Your task to perform on an android device: Search for "jbl flip 4" on target, select the first entry, add it to the cart, then select checkout. Image 0: 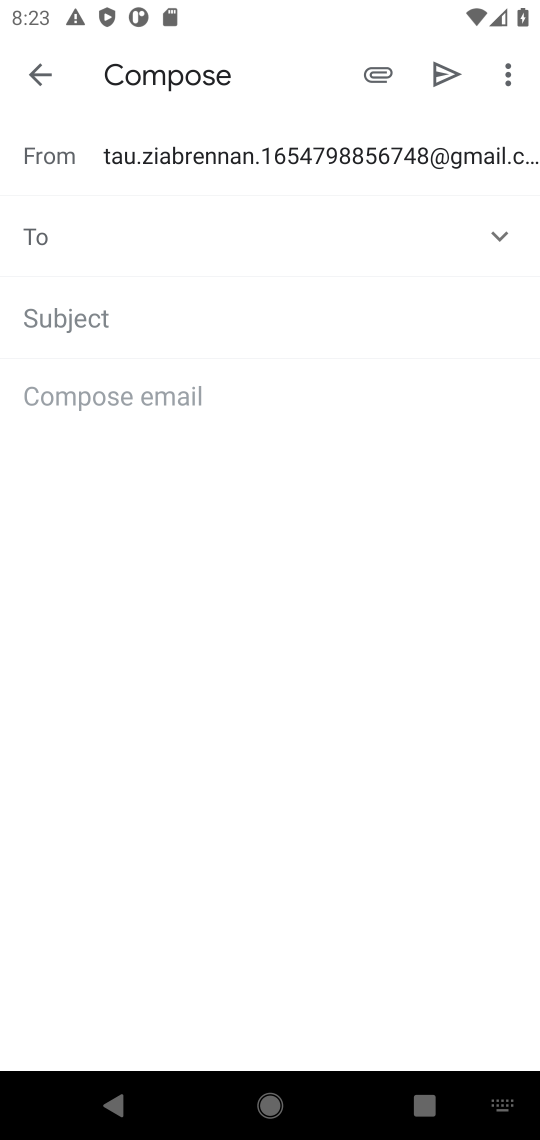
Step 0: drag from (318, 964) to (488, 319)
Your task to perform on an android device: Search for "jbl flip 4" on target, select the first entry, add it to the cart, then select checkout. Image 1: 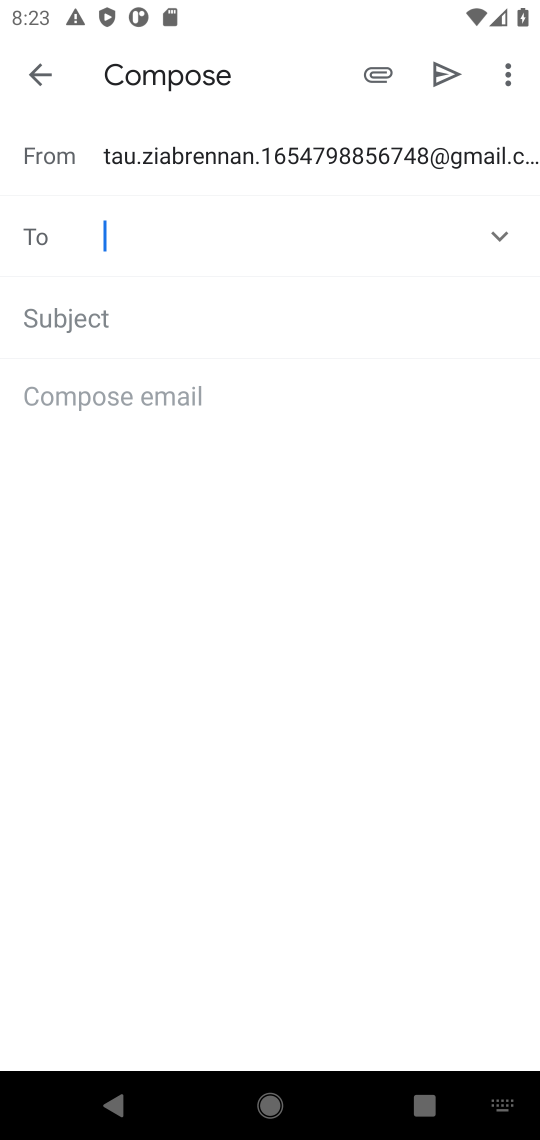
Step 1: press home button
Your task to perform on an android device: Search for "jbl flip 4" on target, select the first entry, add it to the cart, then select checkout. Image 2: 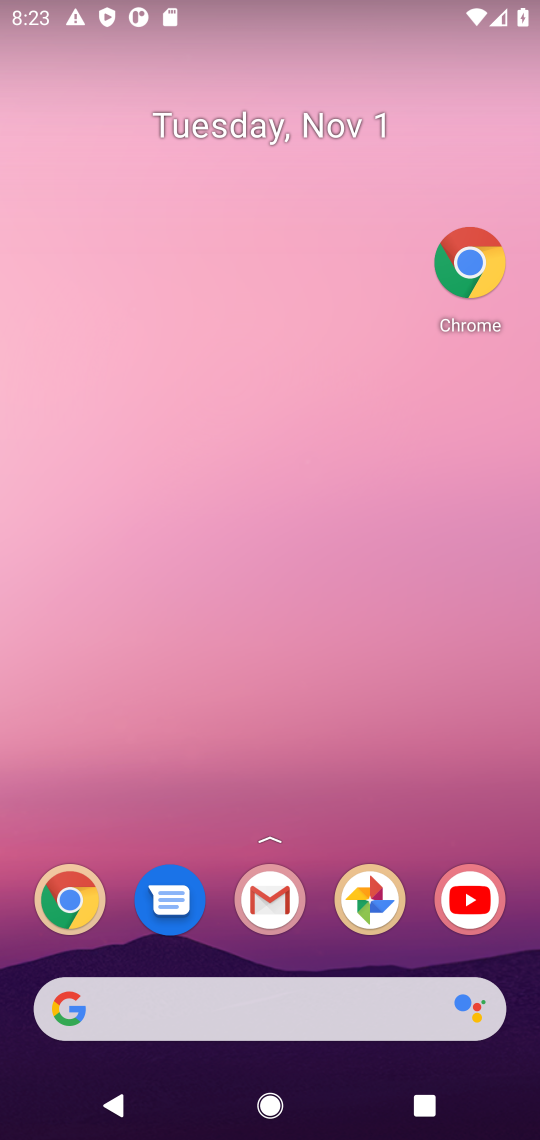
Step 2: drag from (334, 961) to (247, 162)
Your task to perform on an android device: Search for "jbl flip 4" on target, select the first entry, add it to the cart, then select checkout. Image 3: 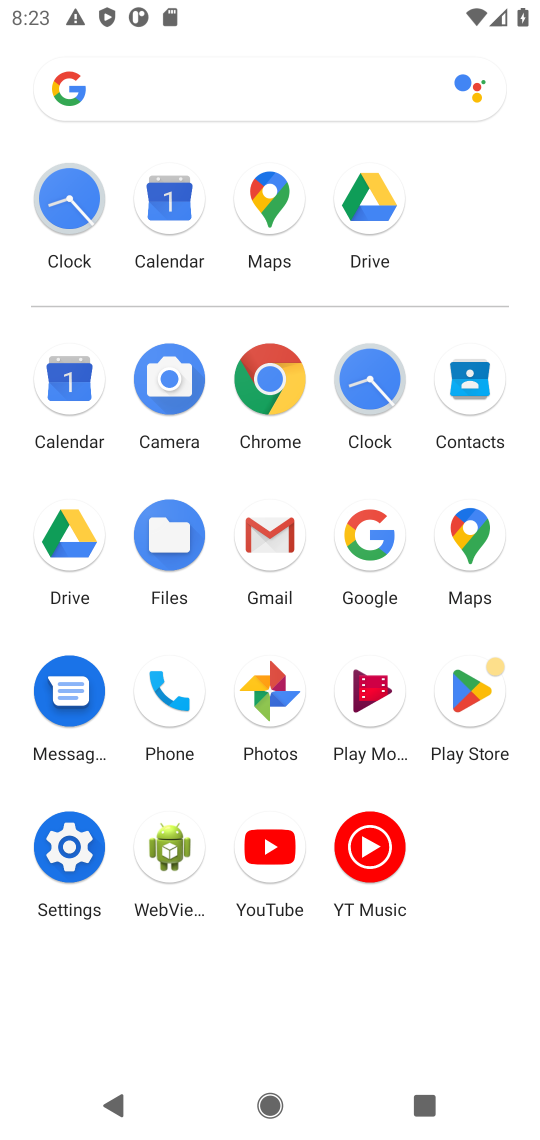
Step 3: click (273, 385)
Your task to perform on an android device: Search for "jbl flip 4" on target, select the first entry, add it to the cart, then select checkout. Image 4: 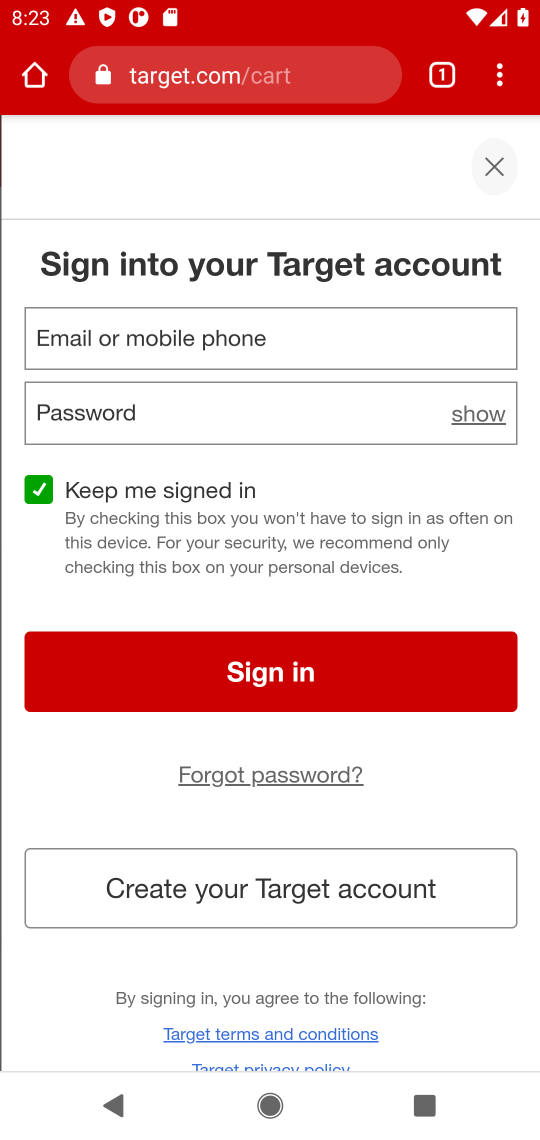
Step 4: click (283, 94)
Your task to perform on an android device: Search for "jbl flip 4" on target, select the first entry, add it to the cart, then select checkout. Image 5: 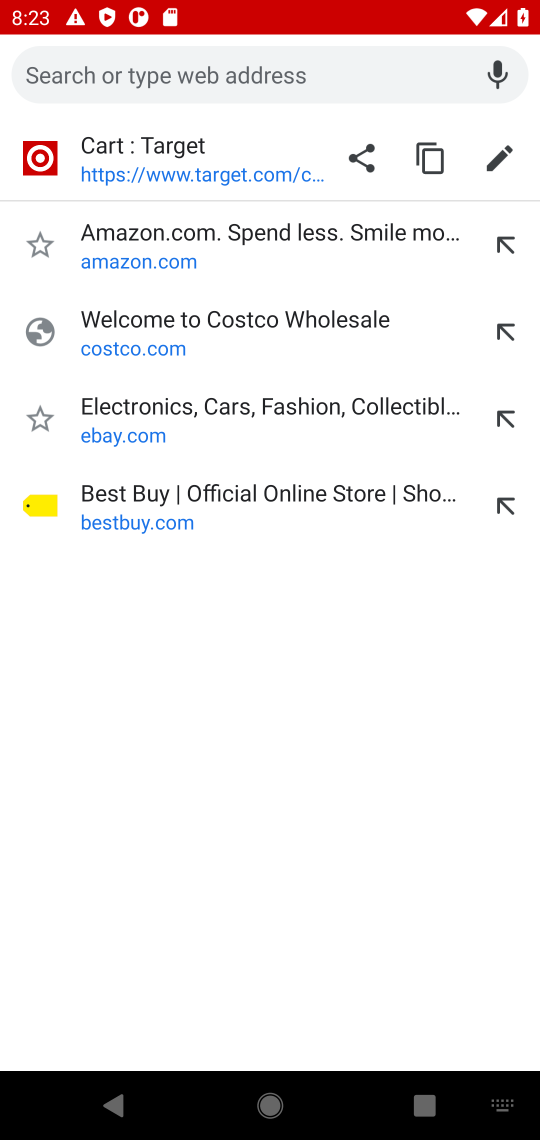
Step 5: type "target.com"
Your task to perform on an android device: Search for "jbl flip 4" on target, select the first entry, add it to the cart, then select checkout. Image 6: 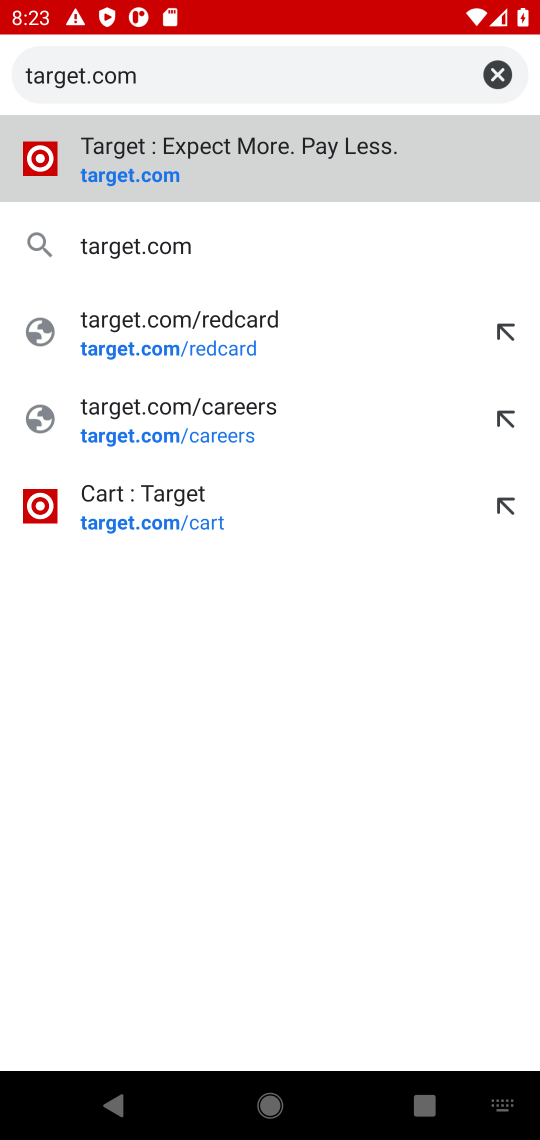
Step 6: click (135, 167)
Your task to perform on an android device: Search for "jbl flip 4" on target, select the first entry, add it to the cart, then select checkout. Image 7: 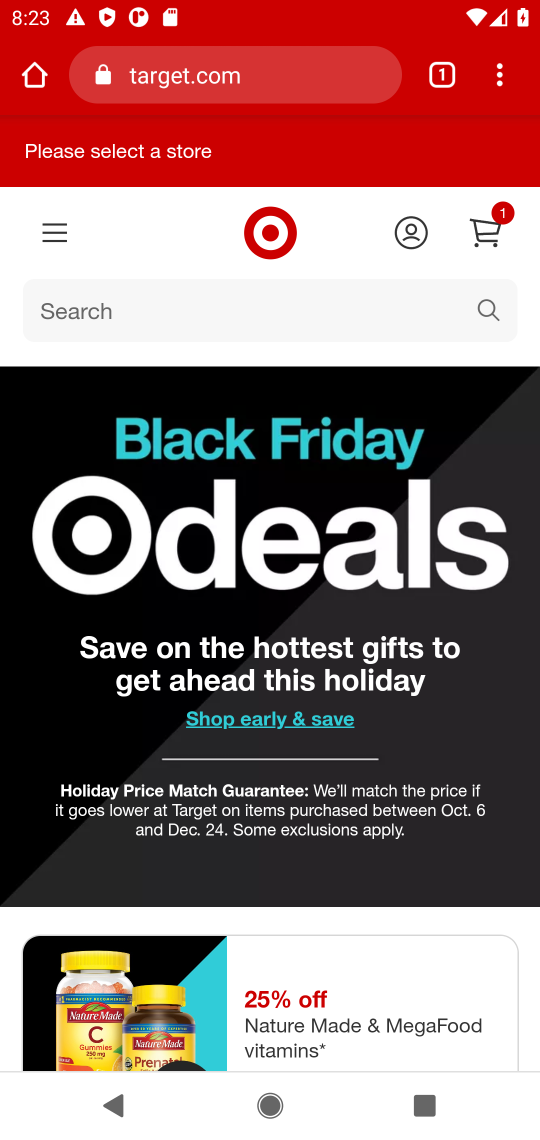
Step 7: click (396, 318)
Your task to perform on an android device: Search for "jbl flip 4" on target, select the first entry, add it to the cart, then select checkout. Image 8: 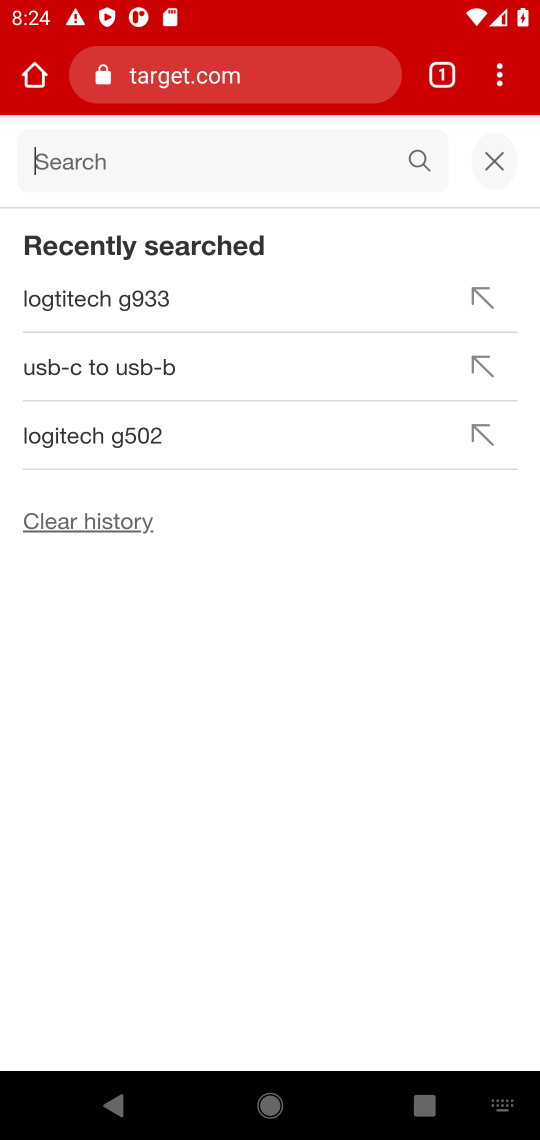
Step 8: type "jbl flip 4"
Your task to perform on an android device: Search for "jbl flip 4" on target, select the first entry, add it to the cart, then select checkout. Image 9: 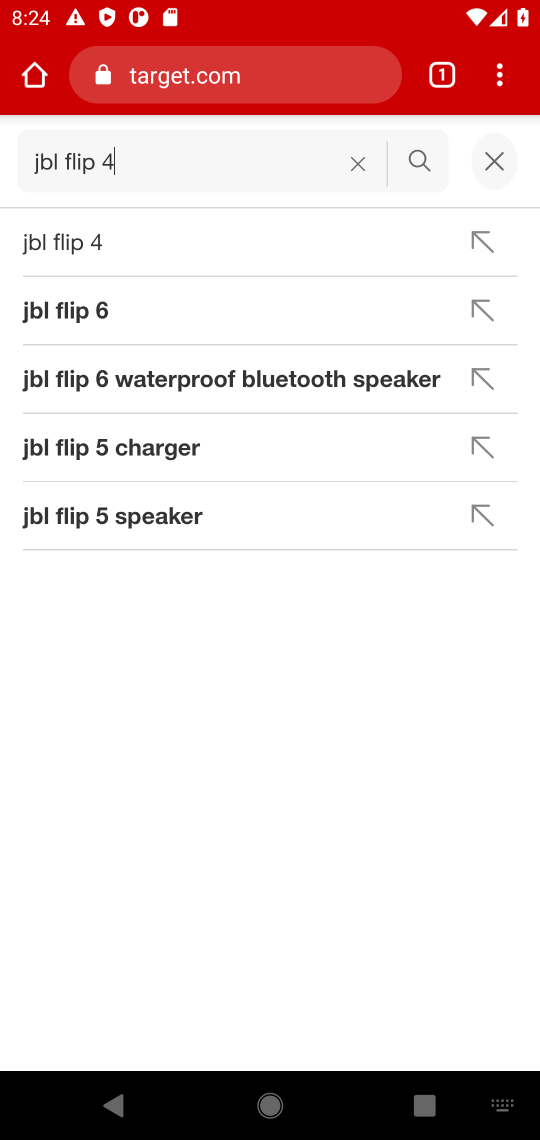
Step 9: press enter
Your task to perform on an android device: Search for "jbl flip 4" on target, select the first entry, add it to the cart, then select checkout. Image 10: 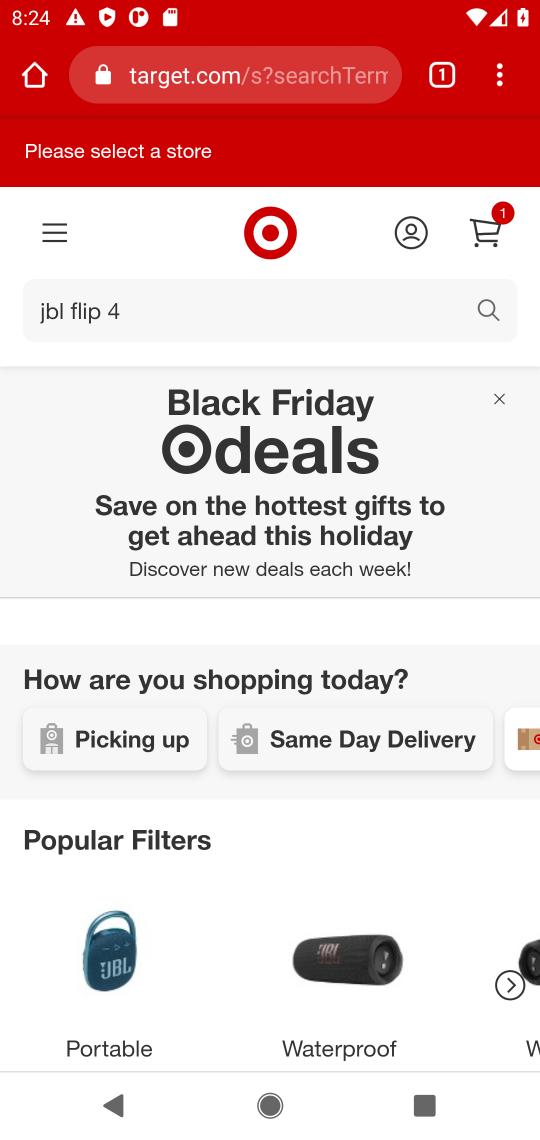
Step 10: drag from (364, 827) to (273, 80)
Your task to perform on an android device: Search for "jbl flip 4" on target, select the first entry, add it to the cart, then select checkout. Image 11: 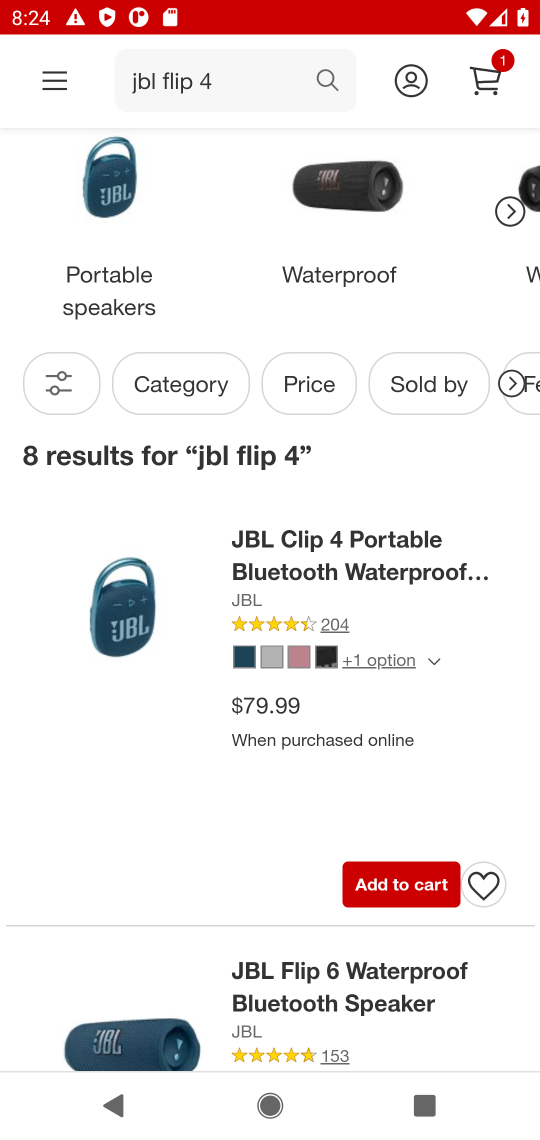
Step 11: click (379, 897)
Your task to perform on an android device: Search for "jbl flip 4" on target, select the first entry, add it to the cart, then select checkout. Image 12: 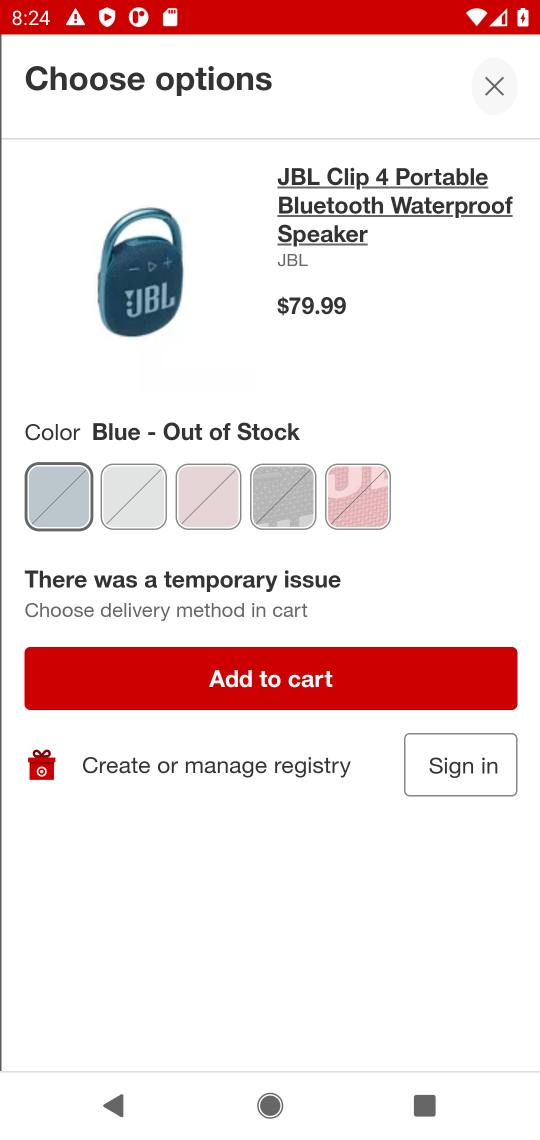
Step 12: click (348, 677)
Your task to perform on an android device: Search for "jbl flip 4" on target, select the first entry, add it to the cart, then select checkout. Image 13: 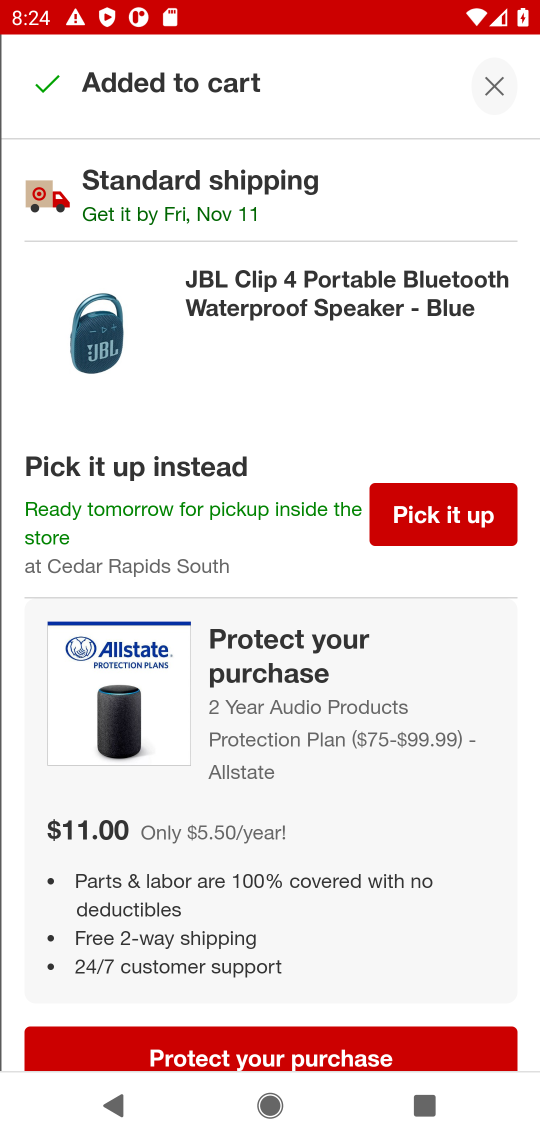
Step 13: drag from (365, 1002) to (410, 434)
Your task to perform on an android device: Search for "jbl flip 4" on target, select the first entry, add it to the cart, then select checkout. Image 14: 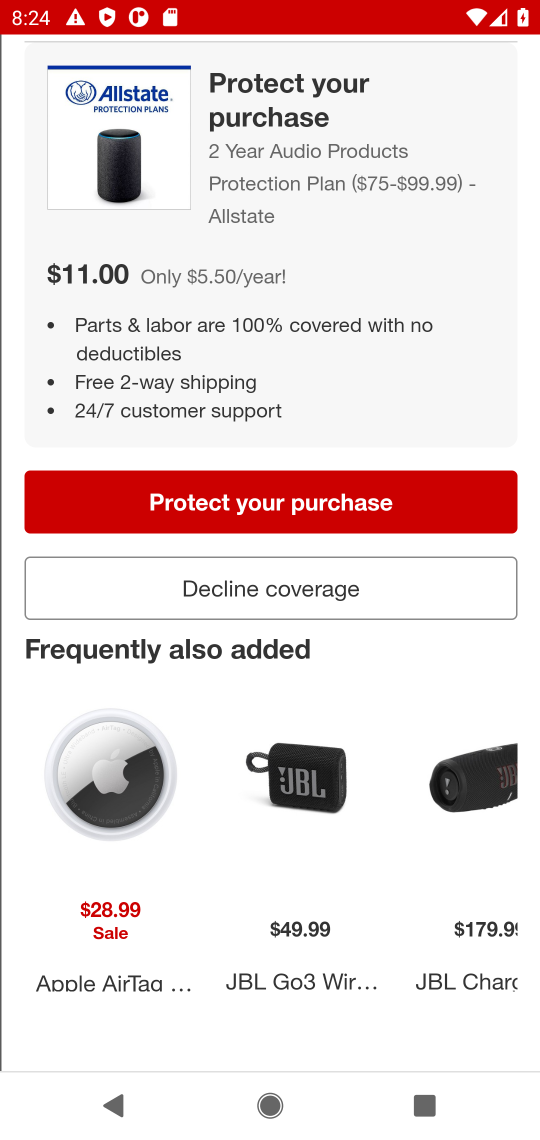
Step 14: click (358, 583)
Your task to perform on an android device: Search for "jbl flip 4" on target, select the first entry, add it to the cart, then select checkout. Image 15: 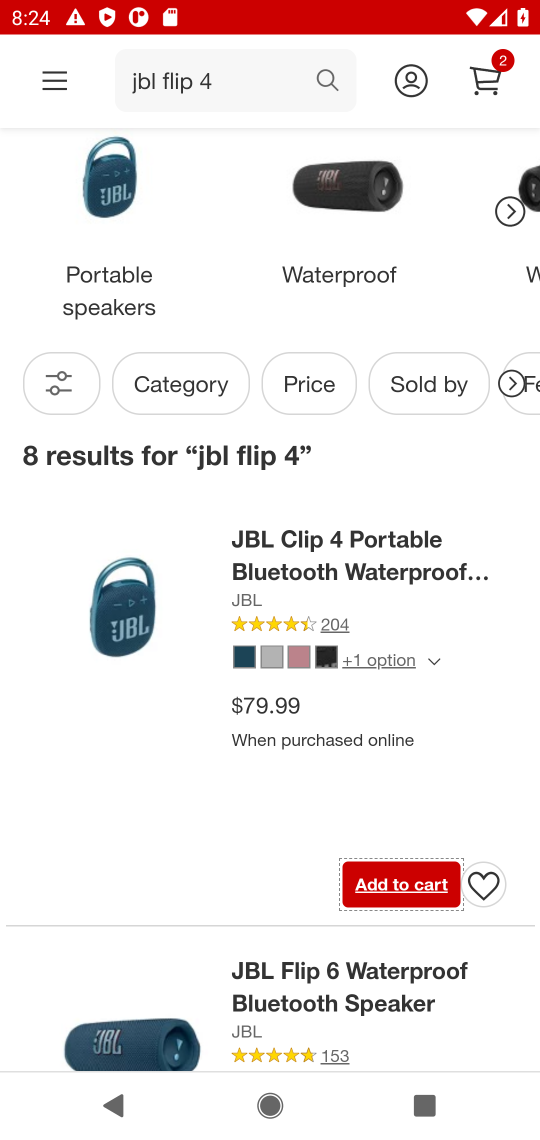
Step 15: click (477, 64)
Your task to perform on an android device: Search for "jbl flip 4" on target, select the first entry, add it to the cart, then select checkout. Image 16: 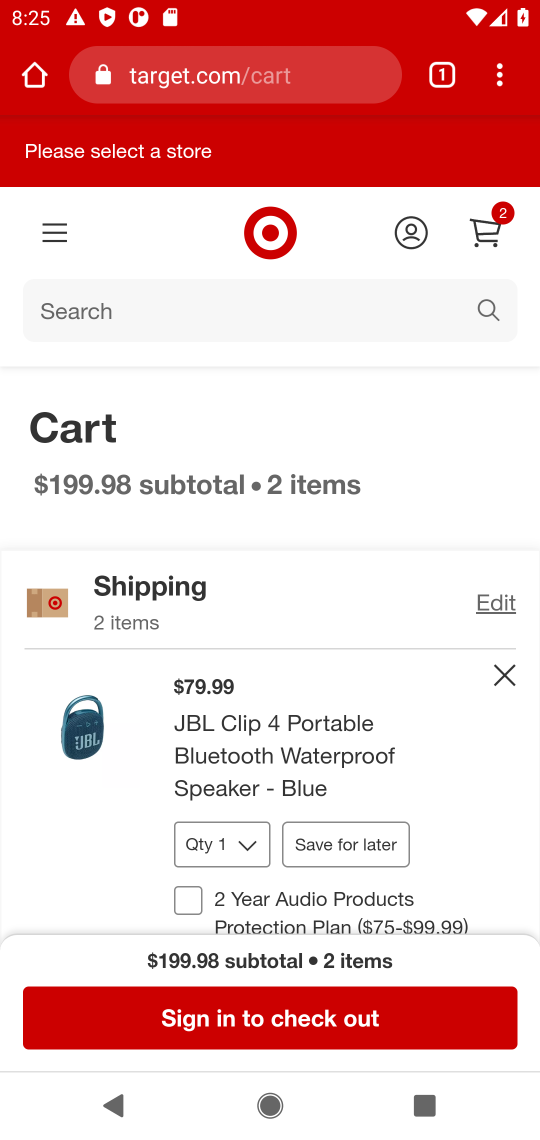
Step 16: click (337, 1039)
Your task to perform on an android device: Search for "jbl flip 4" on target, select the first entry, add it to the cart, then select checkout. Image 17: 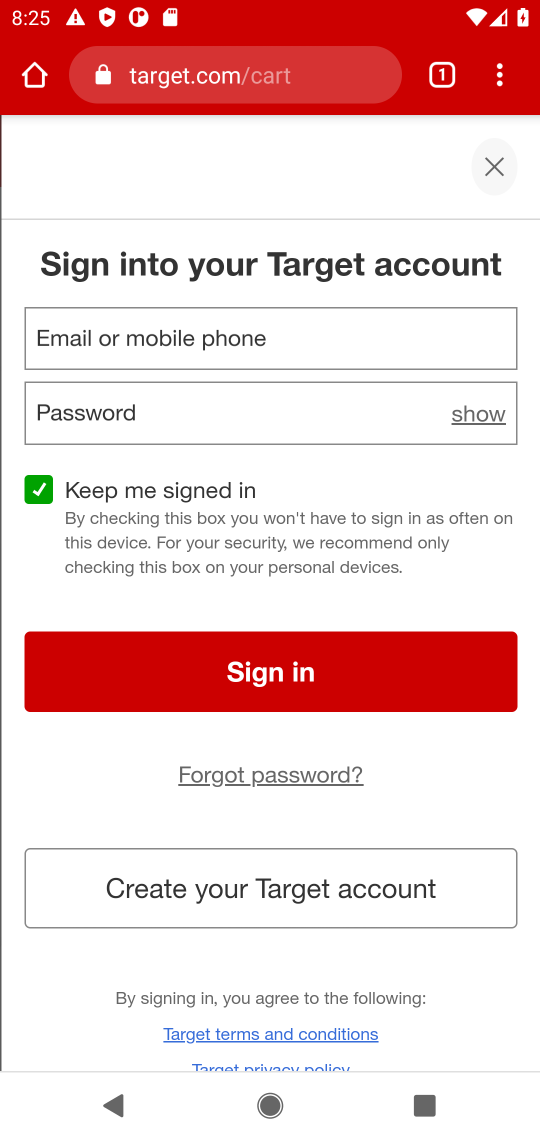
Step 17: task complete